Your task to perform on an android device: turn off translation in the chrome app Image 0: 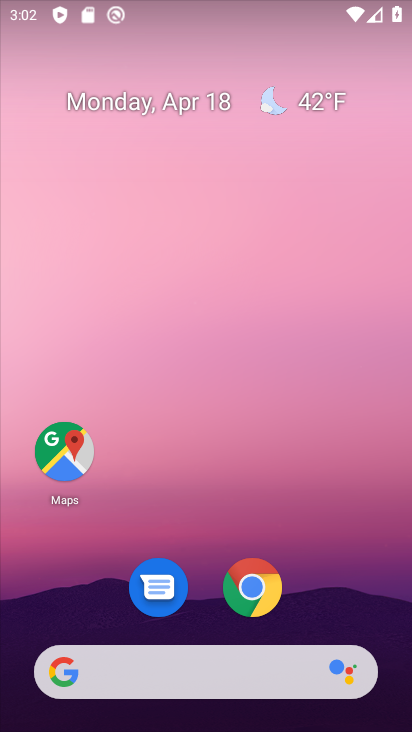
Step 0: click (261, 583)
Your task to perform on an android device: turn off translation in the chrome app Image 1: 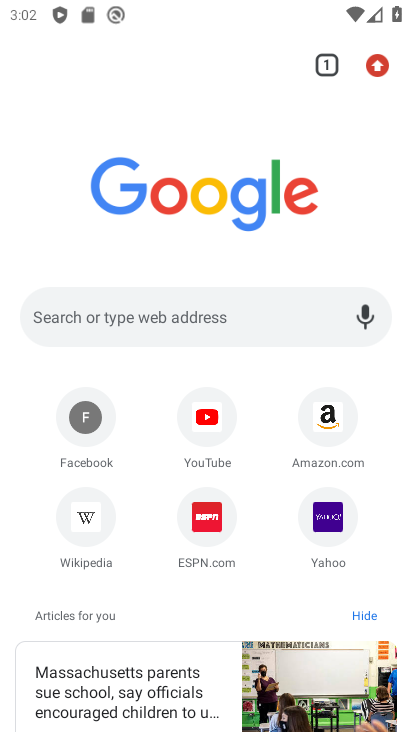
Step 1: click (382, 67)
Your task to perform on an android device: turn off translation in the chrome app Image 2: 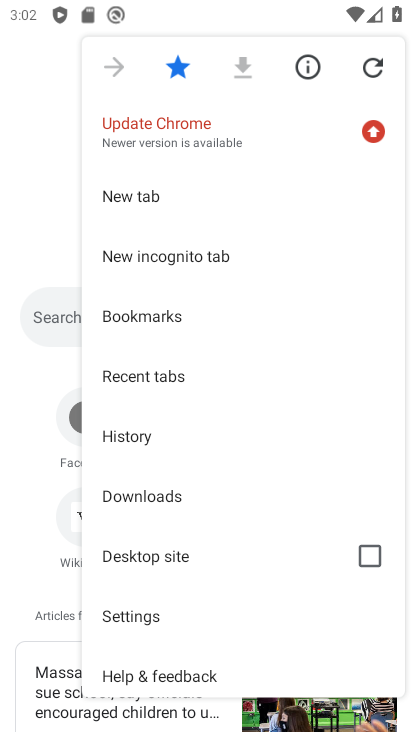
Step 2: drag from (186, 657) to (184, 415)
Your task to perform on an android device: turn off translation in the chrome app Image 3: 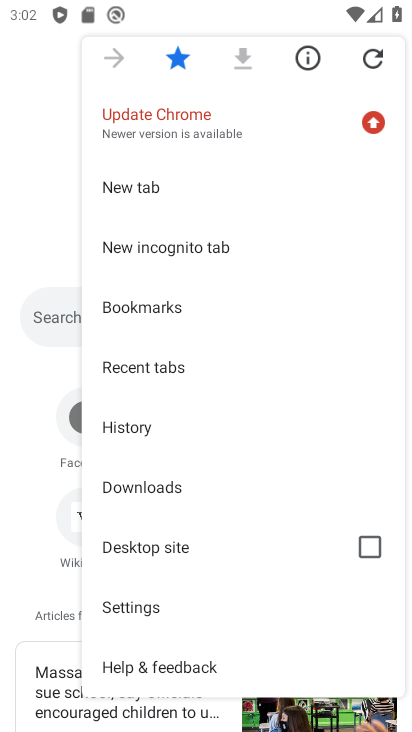
Step 3: click (122, 608)
Your task to perform on an android device: turn off translation in the chrome app Image 4: 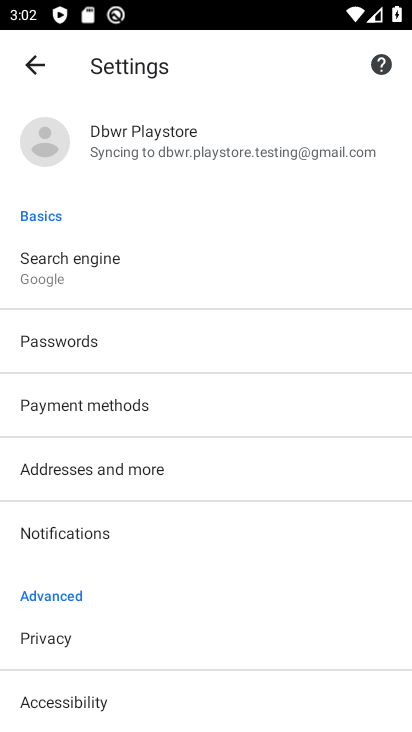
Step 4: drag from (96, 578) to (178, 147)
Your task to perform on an android device: turn off translation in the chrome app Image 5: 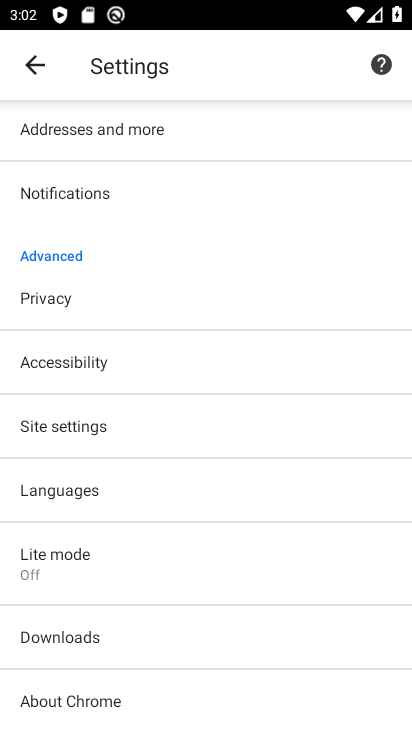
Step 5: click (68, 494)
Your task to perform on an android device: turn off translation in the chrome app Image 6: 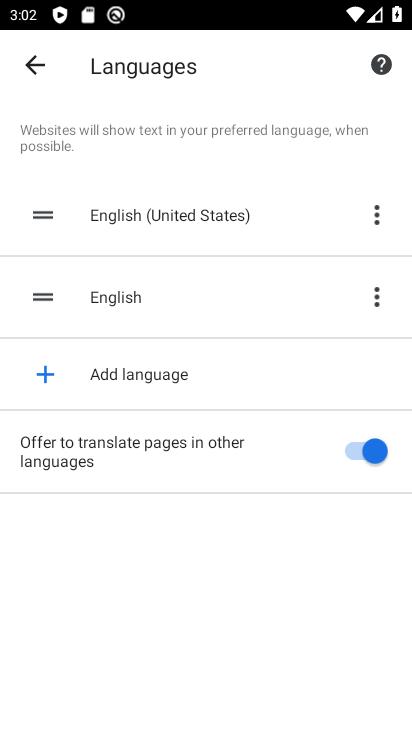
Step 6: click (345, 446)
Your task to perform on an android device: turn off translation in the chrome app Image 7: 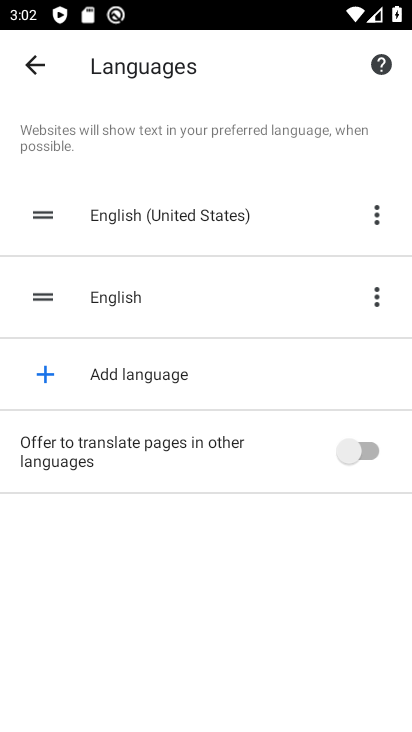
Step 7: task complete